Your task to perform on an android device: turn on javascript in the chrome app Image 0: 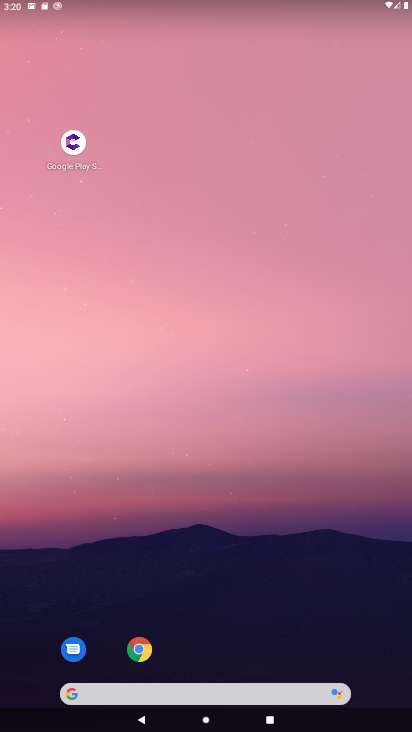
Step 0: click (141, 649)
Your task to perform on an android device: turn on javascript in the chrome app Image 1: 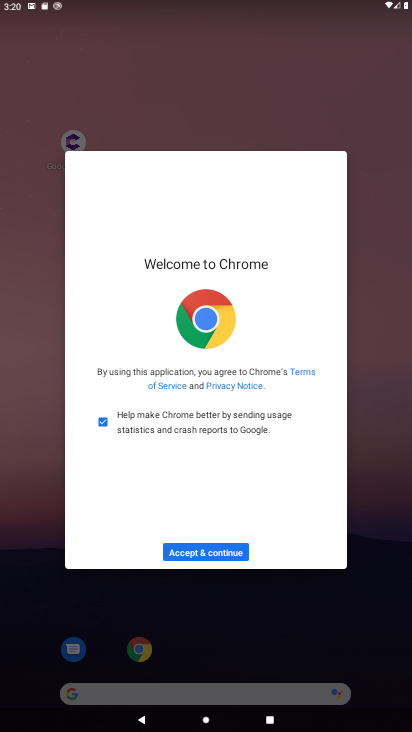
Step 1: click (191, 545)
Your task to perform on an android device: turn on javascript in the chrome app Image 2: 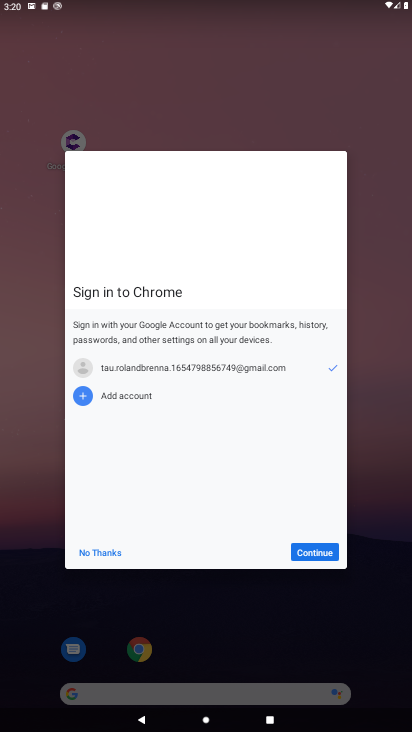
Step 2: click (306, 550)
Your task to perform on an android device: turn on javascript in the chrome app Image 3: 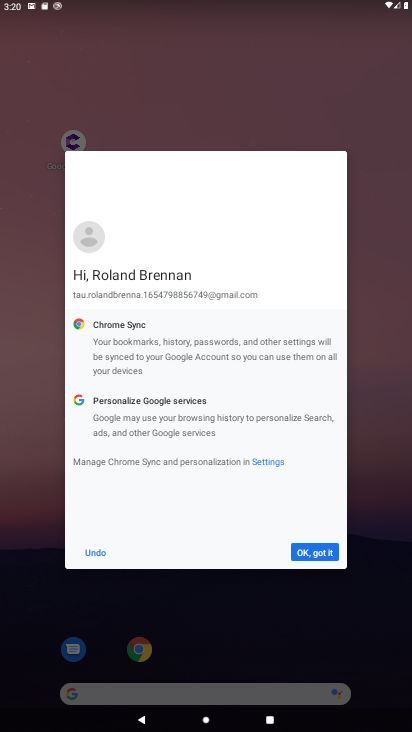
Step 3: click (306, 550)
Your task to perform on an android device: turn on javascript in the chrome app Image 4: 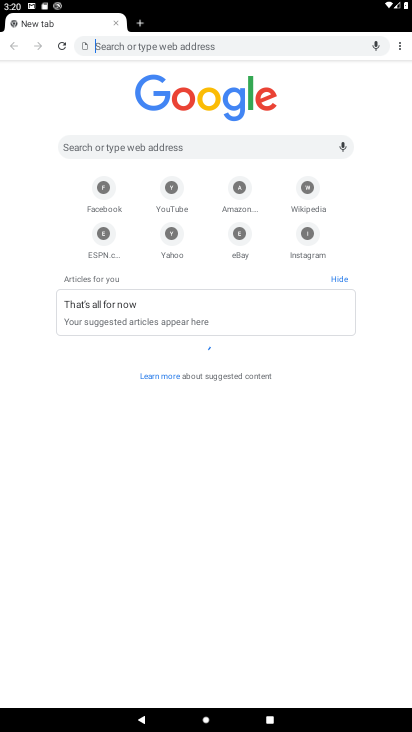
Step 4: click (399, 49)
Your task to perform on an android device: turn on javascript in the chrome app Image 5: 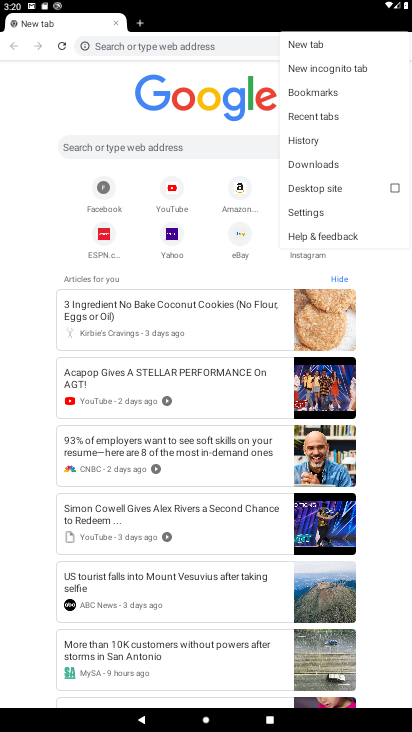
Step 5: click (301, 213)
Your task to perform on an android device: turn on javascript in the chrome app Image 6: 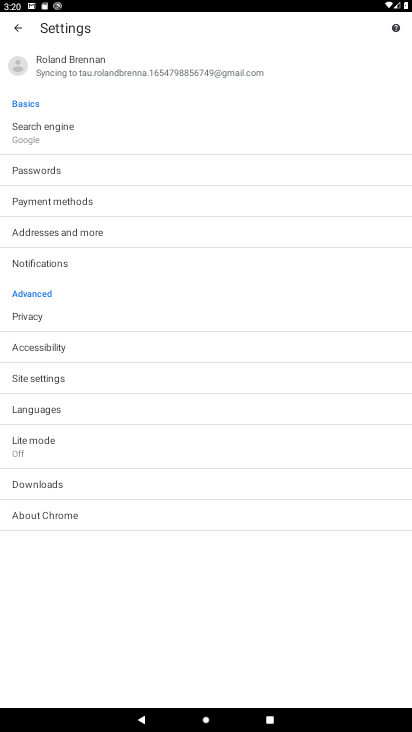
Step 6: click (42, 373)
Your task to perform on an android device: turn on javascript in the chrome app Image 7: 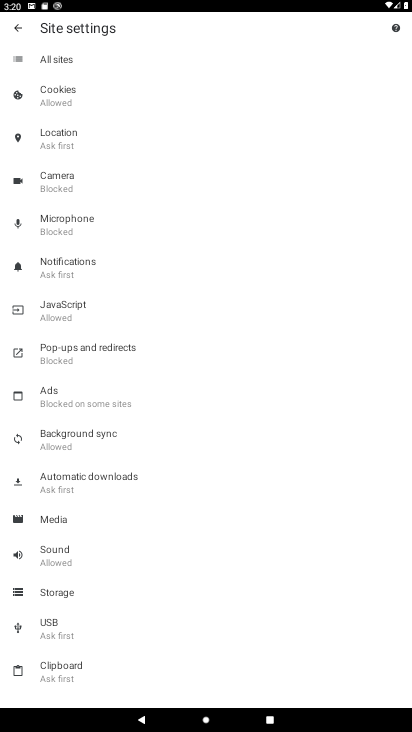
Step 7: click (58, 307)
Your task to perform on an android device: turn on javascript in the chrome app Image 8: 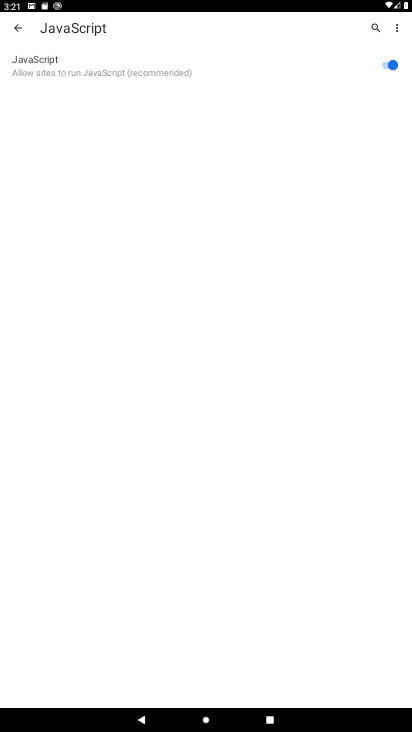
Step 8: task complete